Your task to perform on an android device: check storage Image 0: 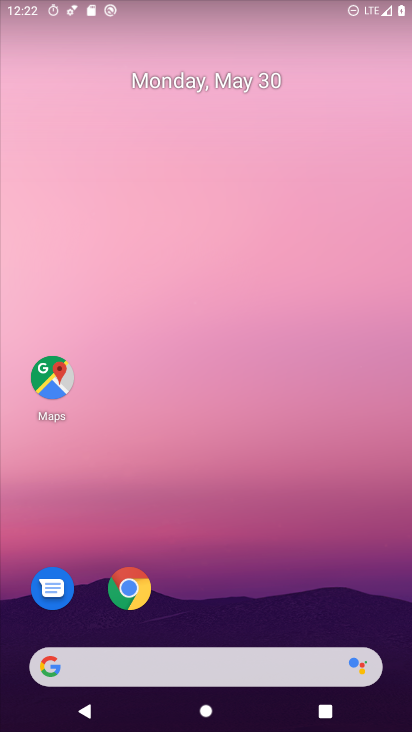
Step 0: drag from (222, 561) to (255, 91)
Your task to perform on an android device: check storage Image 1: 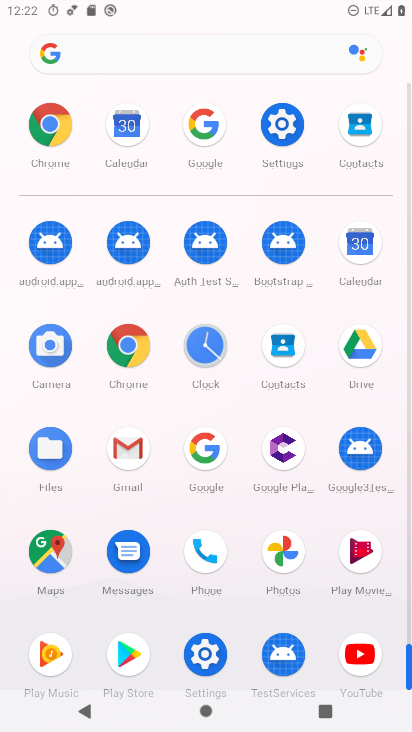
Step 1: click (205, 656)
Your task to perform on an android device: check storage Image 2: 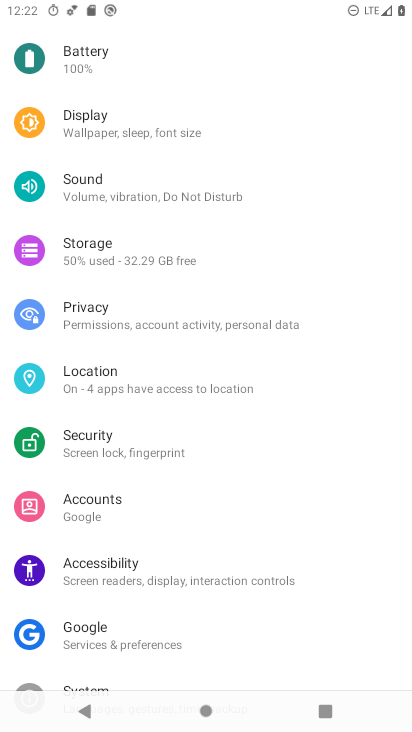
Step 2: click (223, 259)
Your task to perform on an android device: check storage Image 3: 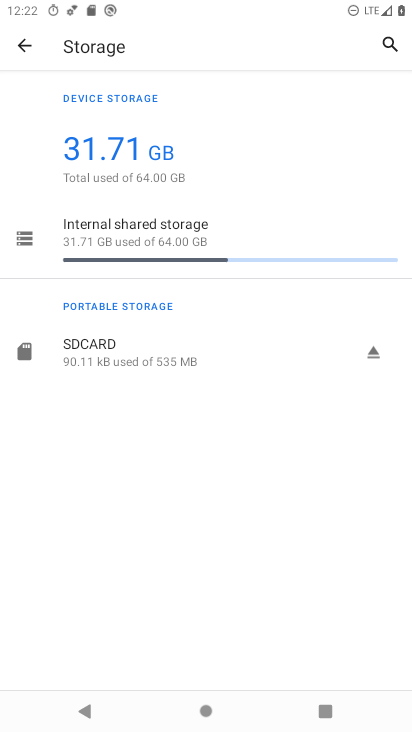
Step 3: click (227, 243)
Your task to perform on an android device: check storage Image 4: 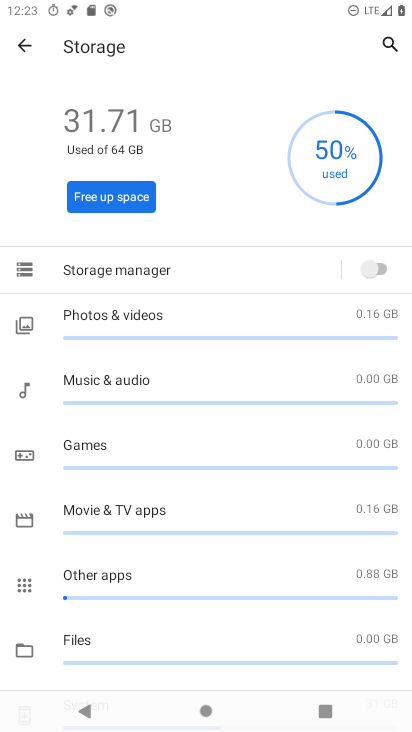
Step 4: task complete